Your task to perform on an android device: Open eBay Image 0: 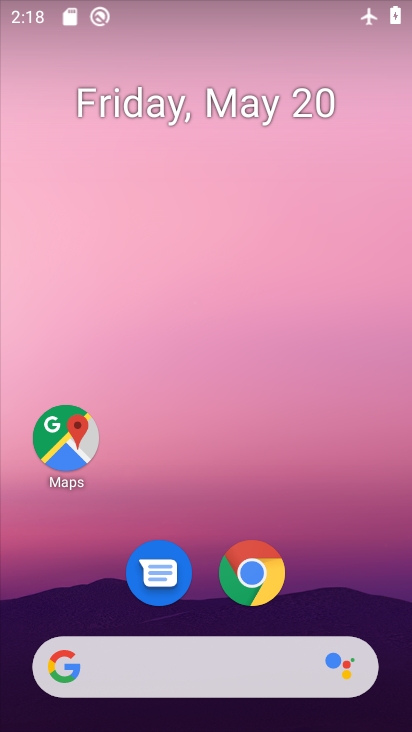
Step 0: click (244, 584)
Your task to perform on an android device: Open eBay Image 1: 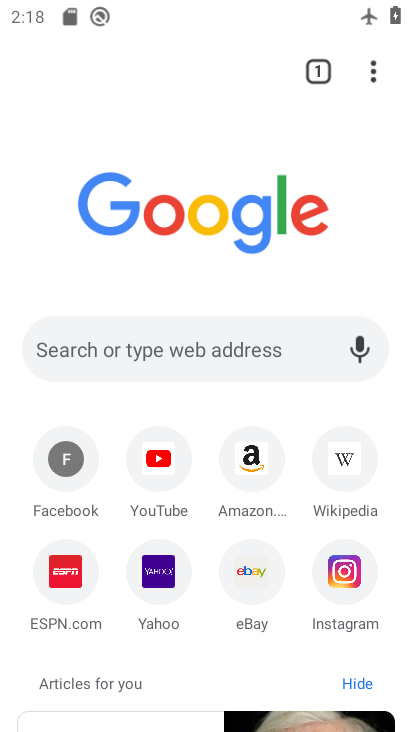
Step 1: click (199, 337)
Your task to perform on an android device: Open eBay Image 2: 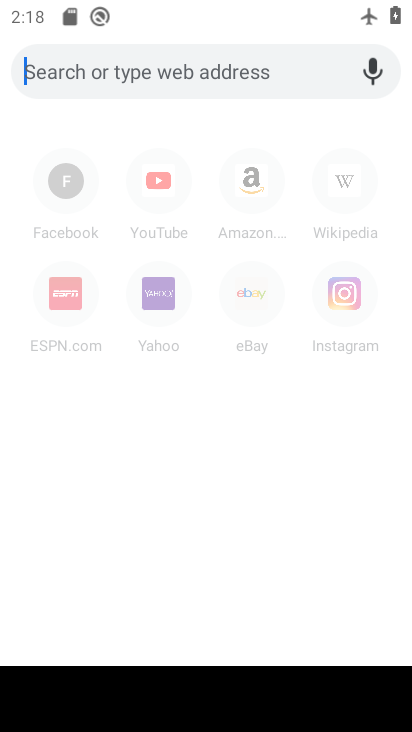
Step 2: type "eBay"
Your task to perform on an android device: Open eBay Image 3: 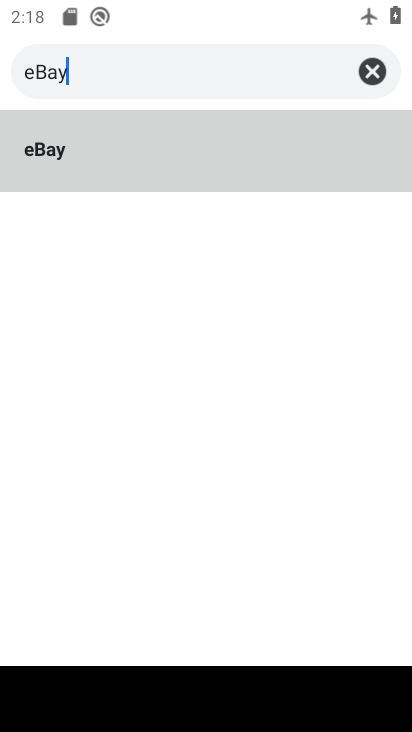
Step 3: click (246, 172)
Your task to perform on an android device: Open eBay Image 4: 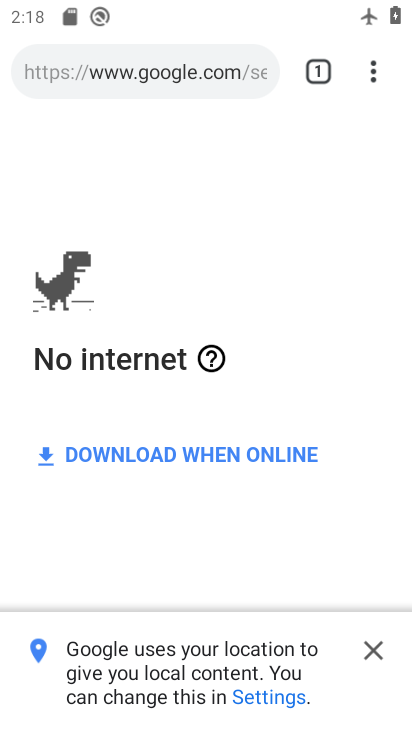
Step 4: click (193, 58)
Your task to perform on an android device: Open eBay Image 5: 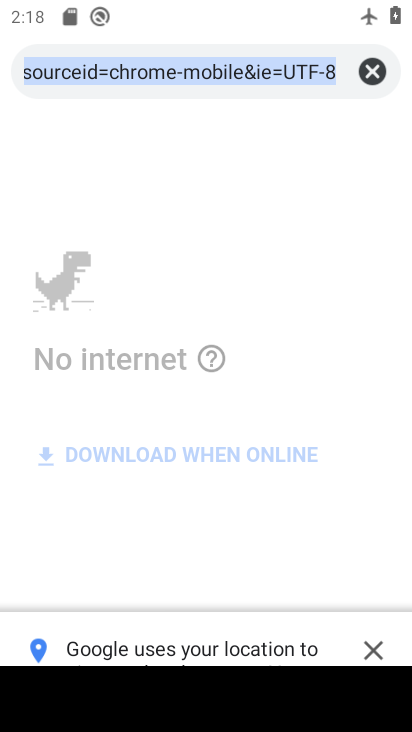
Step 5: click (369, 73)
Your task to perform on an android device: Open eBay Image 6: 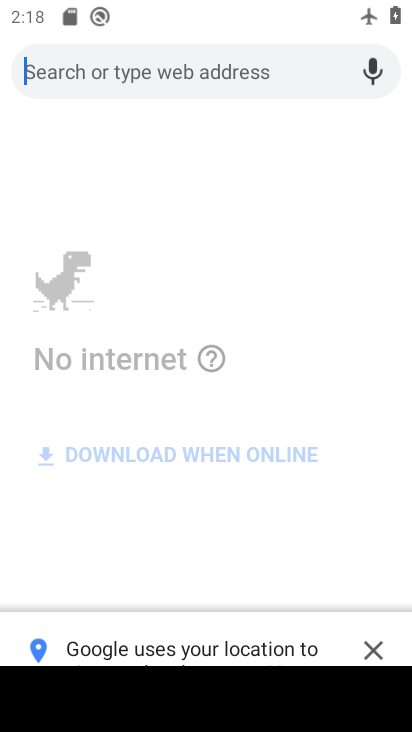
Step 6: type "eBay"
Your task to perform on an android device: Open eBay Image 7: 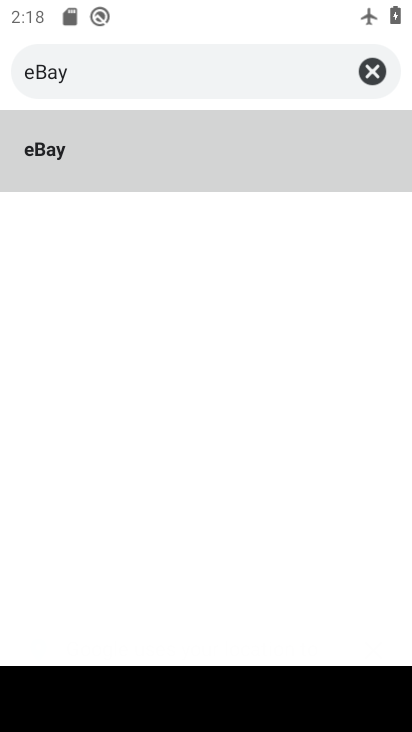
Step 7: click (211, 140)
Your task to perform on an android device: Open eBay Image 8: 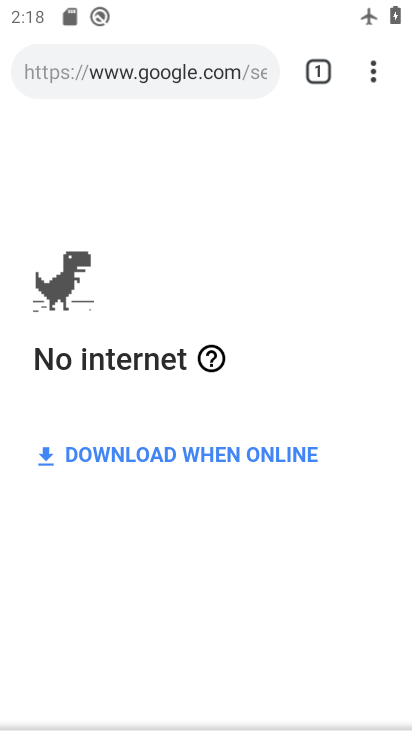
Step 8: task complete